Your task to perform on an android device: Check the news Image 0: 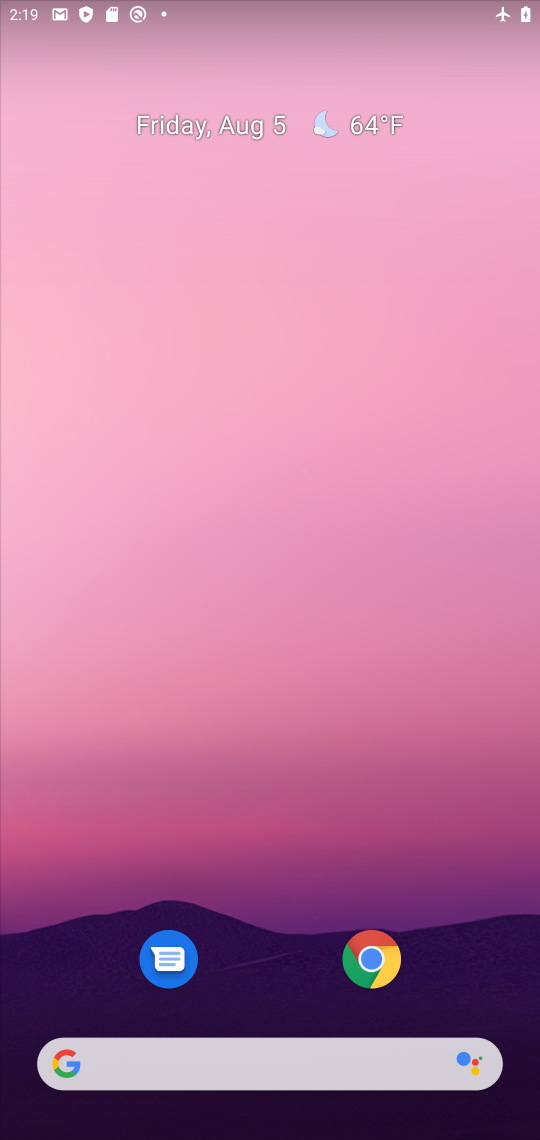
Step 0: click (289, 1079)
Your task to perform on an android device: Check the news Image 1: 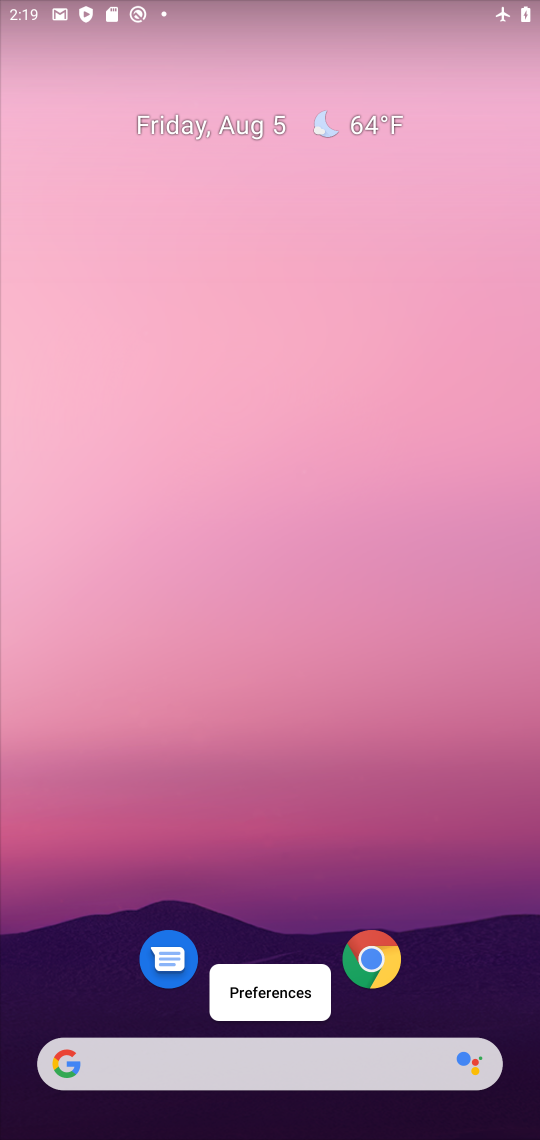
Step 1: click (313, 1060)
Your task to perform on an android device: Check the news Image 2: 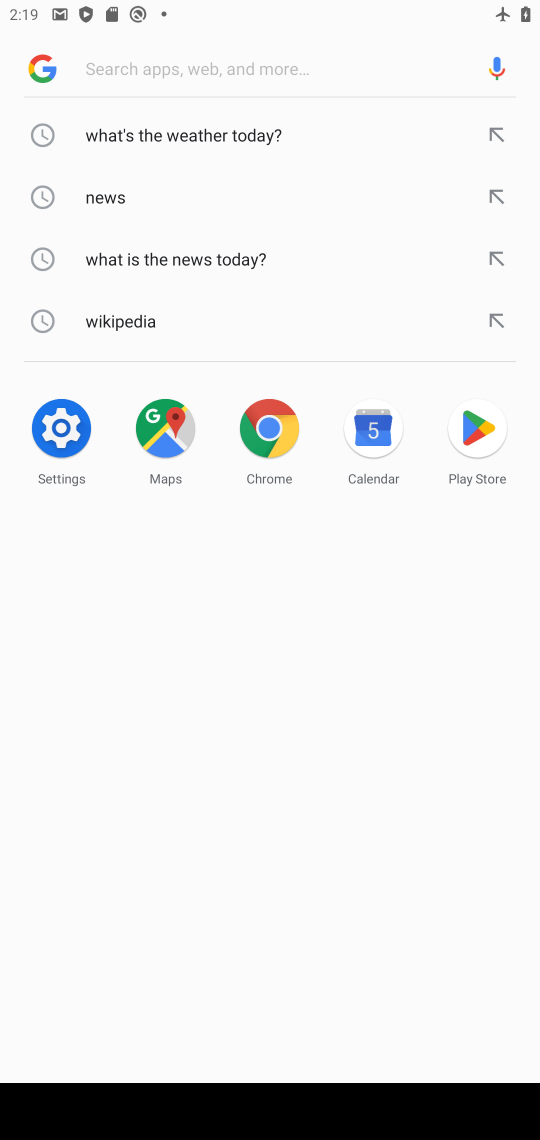
Step 2: type "check the news "
Your task to perform on an android device: Check the news Image 3: 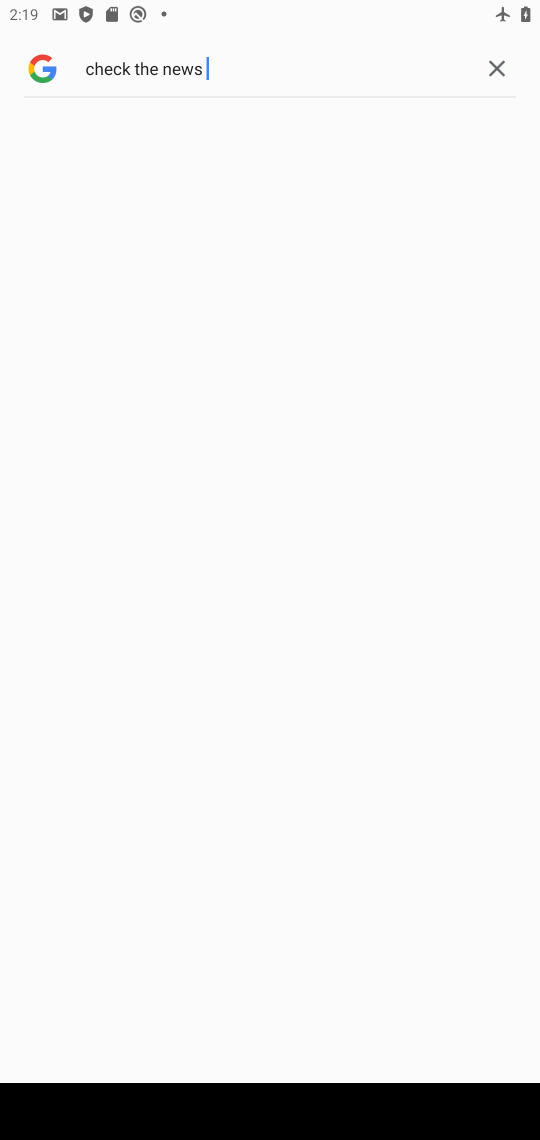
Step 3: press enter
Your task to perform on an android device: Check the news Image 4: 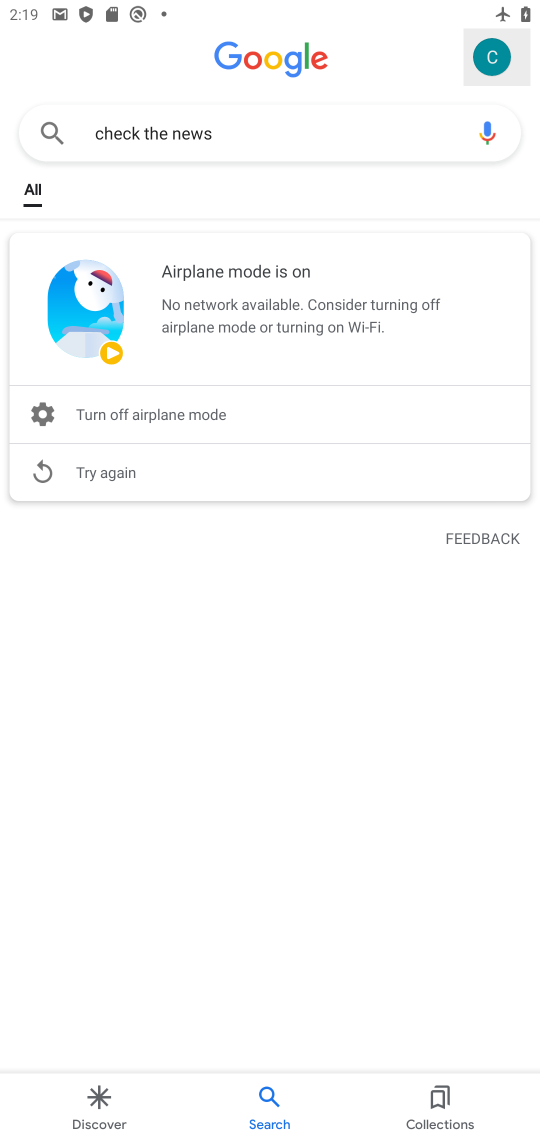
Step 4: task complete